Your task to perform on an android device: Open wifi settings Image 0: 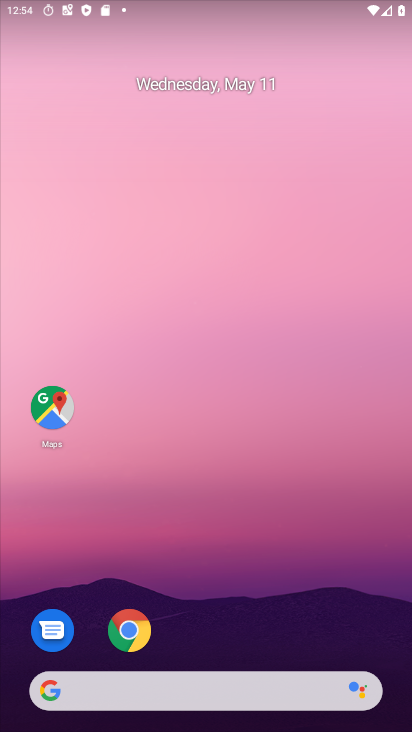
Step 0: drag from (225, 588) to (302, 20)
Your task to perform on an android device: Open wifi settings Image 1: 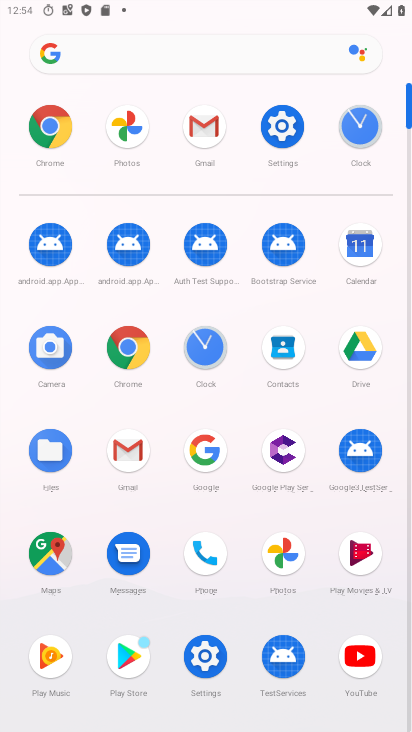
Step 1: click (283, 128)
Your task to perform on an android device: Open wifi settings Image 2: 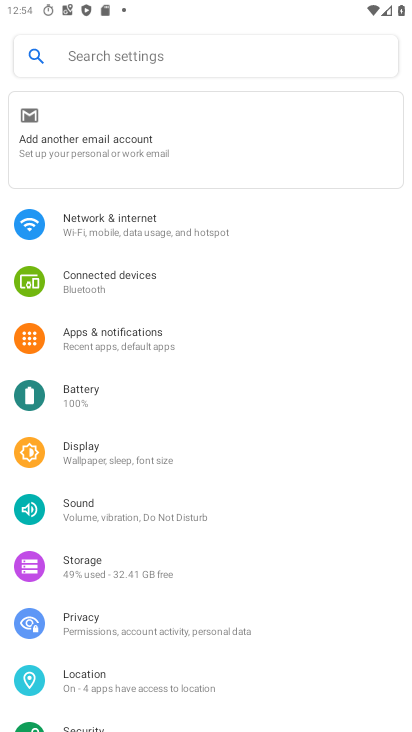
Step 2: click (157, 221)
Your task to perform on an android device: Open wifi settings Image 3: 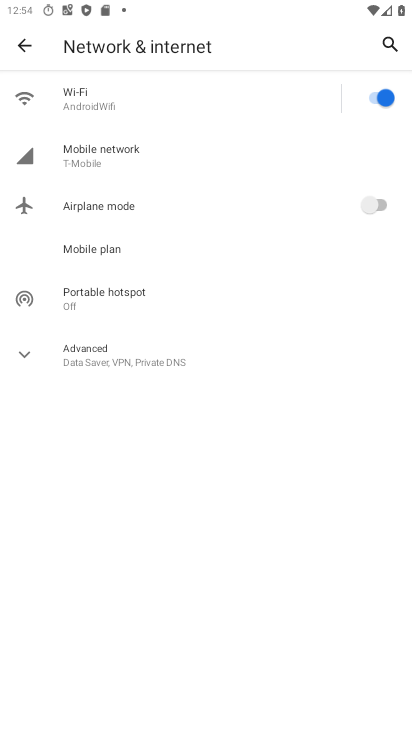
Step 3: click (150, 99)
Your task to perform on an android device: Open wifi settings Image 4: 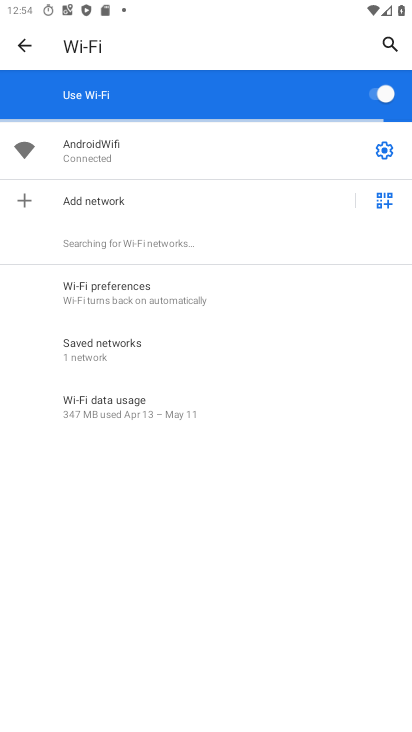
Step 4: click (385, 148)
Your task to perform on an android device: Open wifi settings Image 5: 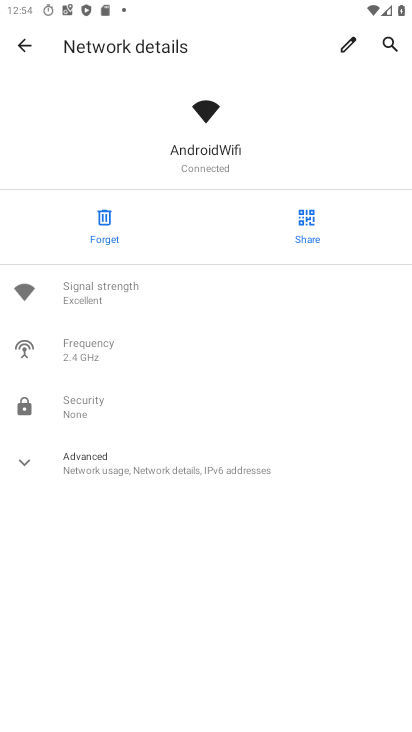
Step 5: task complete